Your task to perform on an android device: check storage Image 0: 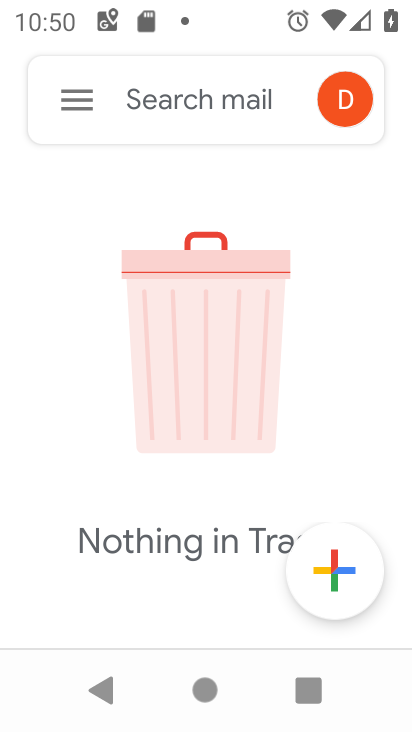
Step 0: press home button
Your task to perform on an android device: check storage Image 1: 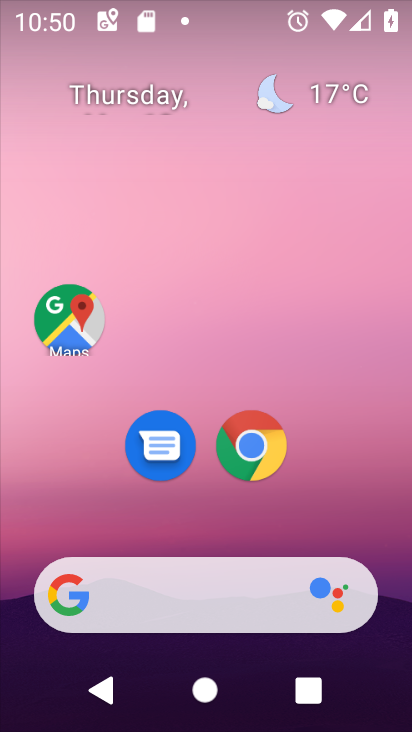
Step 1: drag from (215, 421) to (241, 186)
Your task to perform on an android device: check storage Image 2: 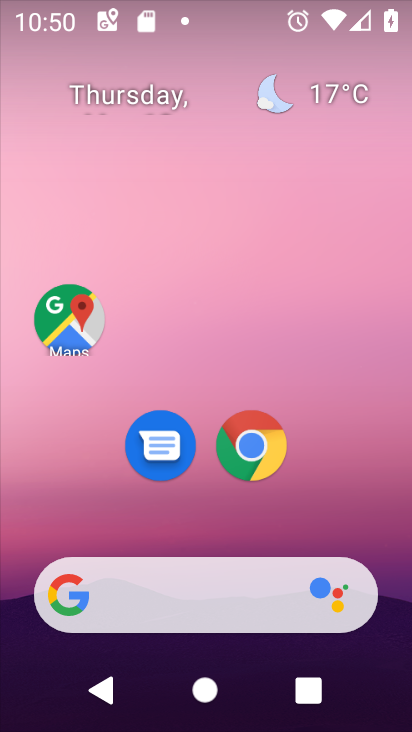
Step 2: drag from (201, 542) to (205, 168)
Your task to perform on an android device: check storage Image 3: 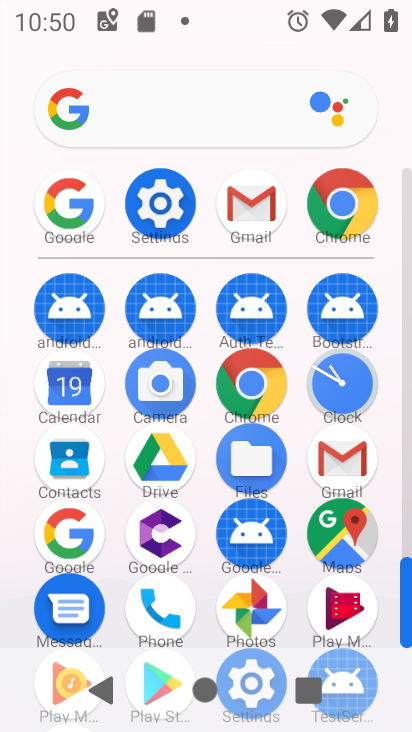
Step 3: click (173, 204)
Your task to perform on an android device: check storage Image 4: 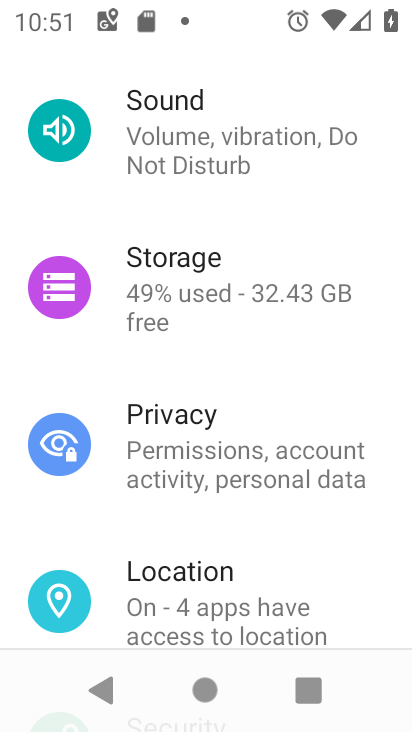
Step 4: drag from (237, 497) to (219, 397)
Your task to perform on an android device: check storage Image 5: 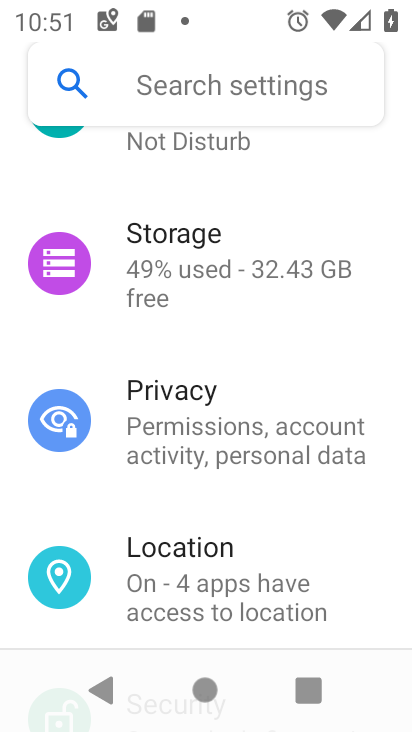
Step 5: click (216, 282)
Your task to perform on an android device: check storage Image 6: 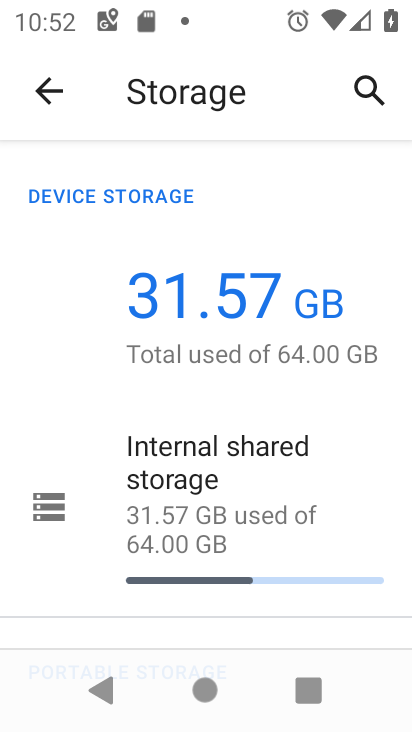
Step 6: click (150, 531)
Your task to perform on an android device: check storage Image 7: 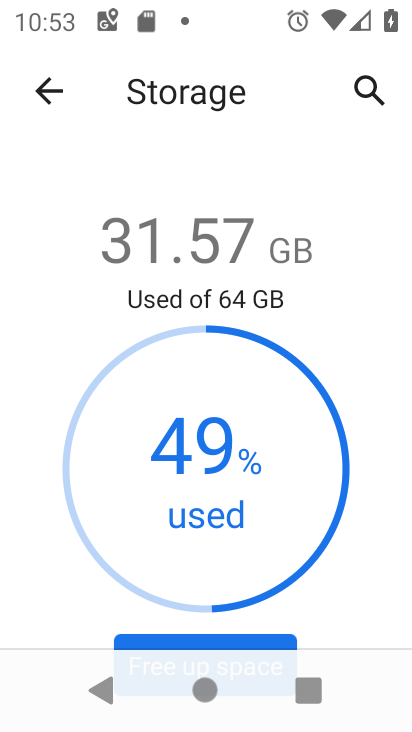
Step 7: task complete